Your task to perform on an android device: Go to sound settings Image 0: 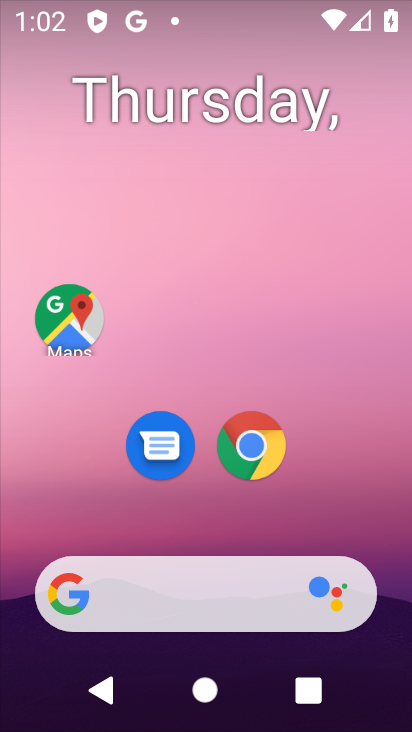
Step 0: drag from (201, 522) to (182, 218)
Your task to perform on an android device: Go to sound settings Image 1: 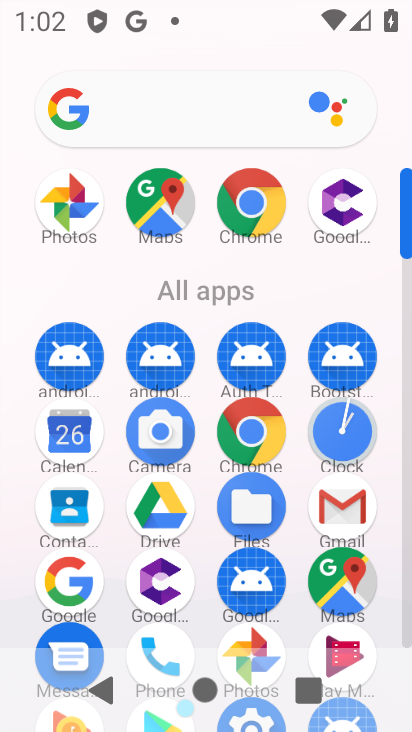
Step 1: drag from (205, 542) to (172, 237)
Your task to perform on an android device: Go to sound settings Image 2: 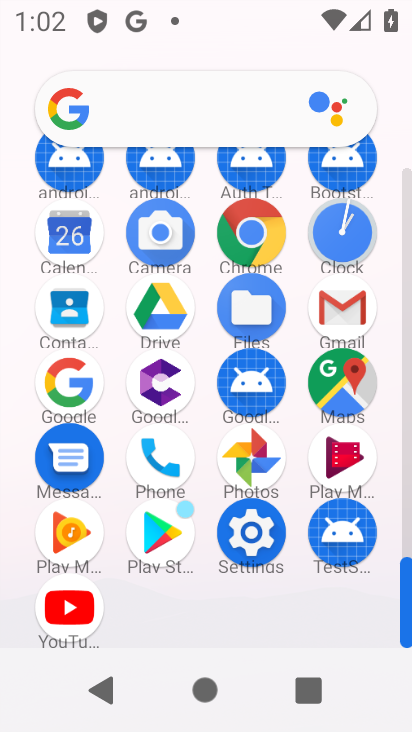
Step 2: click (251, 535)
Your task to perform on an android device: Go to sound settings Image 3: 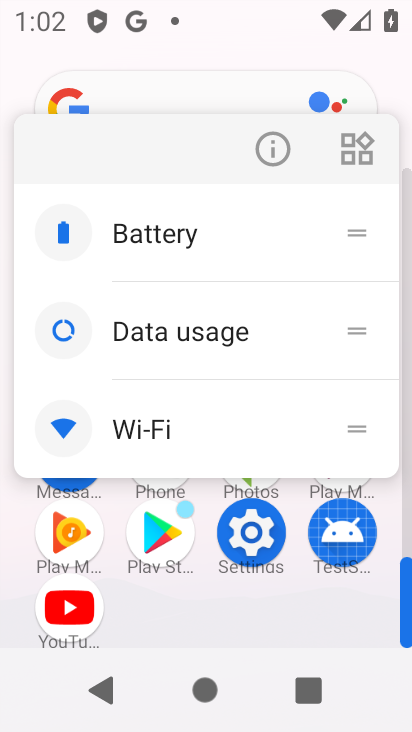
Step 3: click (299, 166)
Your task to perform on an android device: Go to sound settings Image 4: 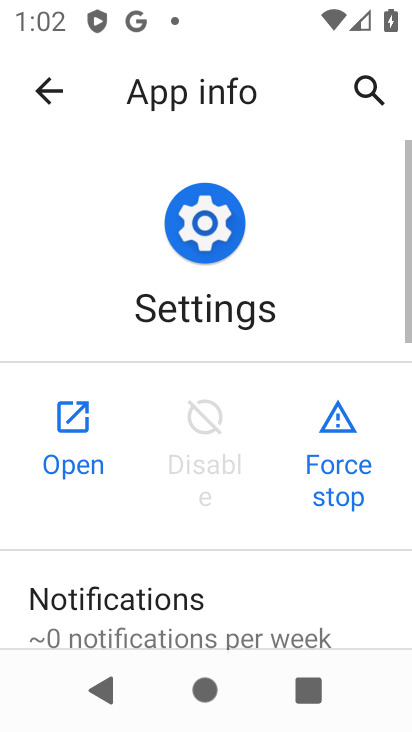
Step 4: click (96, 408)
Your task to perform on an android device: Go to sound settings Image 5: 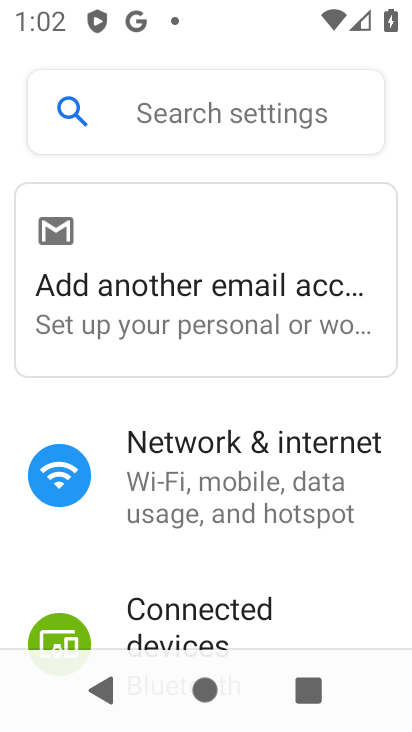
Step 5: drag from (270, 583) to (287, 149)
Your task to perform on an android device: Go to sound settings Image 6: 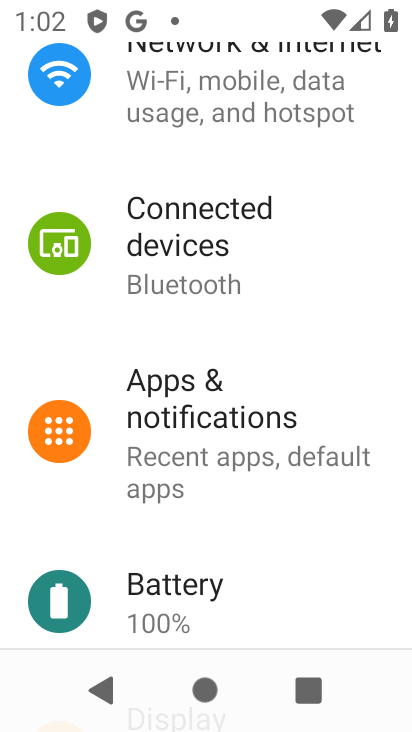
Step 6: drag from (238, 560) to (256, 156)
Your task to perform on an android device: Go to sound settings Image 7: 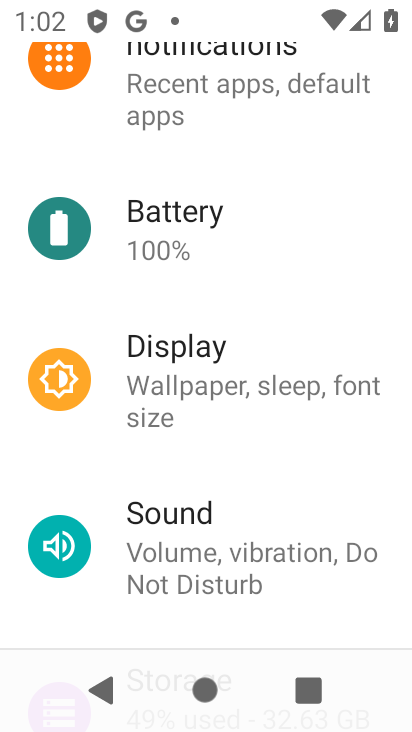
Step 7: click (187, 541)
Your task to perform on an android device: Go to sound settings Image 8: 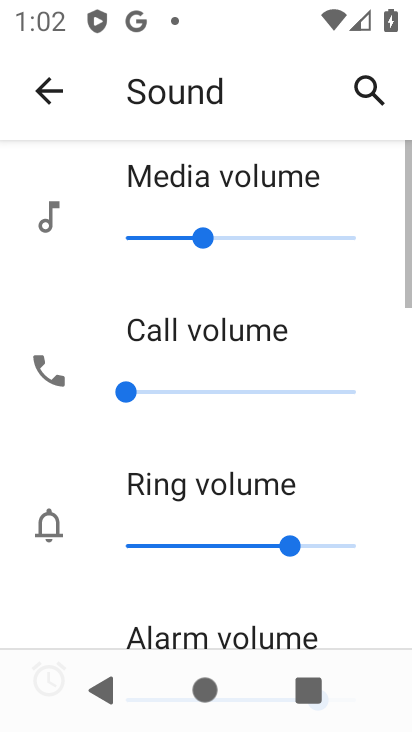
Step 8: task complete